Your task to perform on an android device: What's on my calendar today? Image 0: 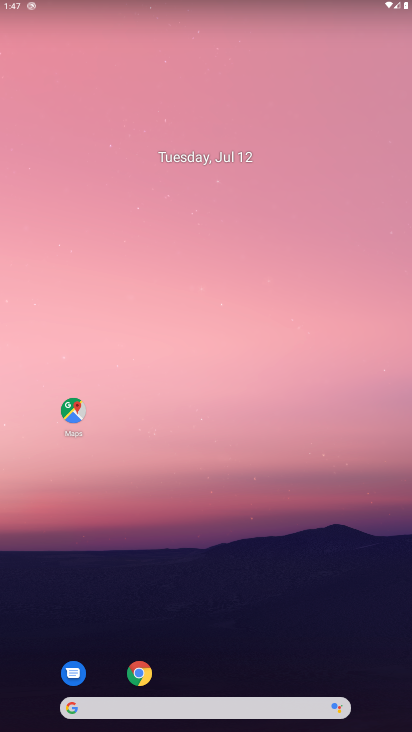
Step 0: drag from (269, 698) to (316, 351)
Your task to perform on an android device: What's on my calendar today? Image 1: 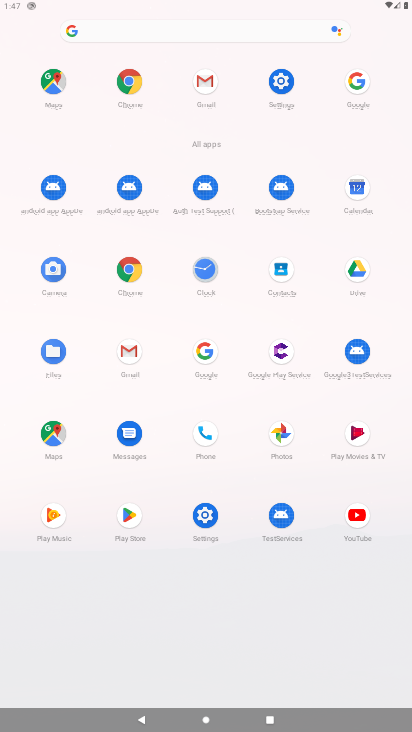
Step 1: click (357, 189)
Your task to perform on an android device: What's on my calendar today? Image 2: 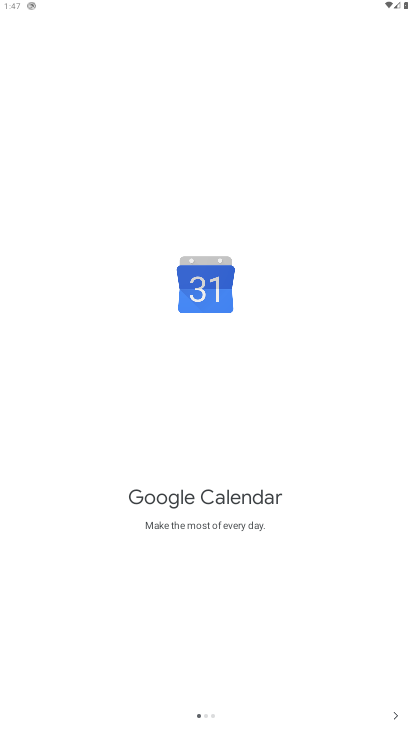
Step 2: click (394, 713)
Your task to perform on an android device: What's on my calendar today? Image 3: 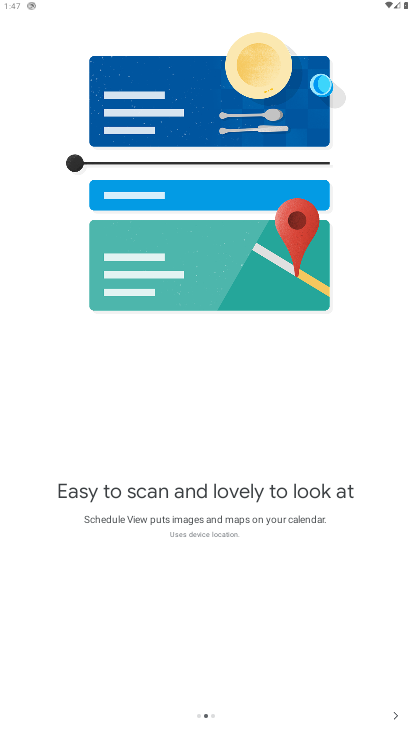
Step 3: click (394, 713)
Your task to perform on an android device: What's on my calendar today? Image 4: 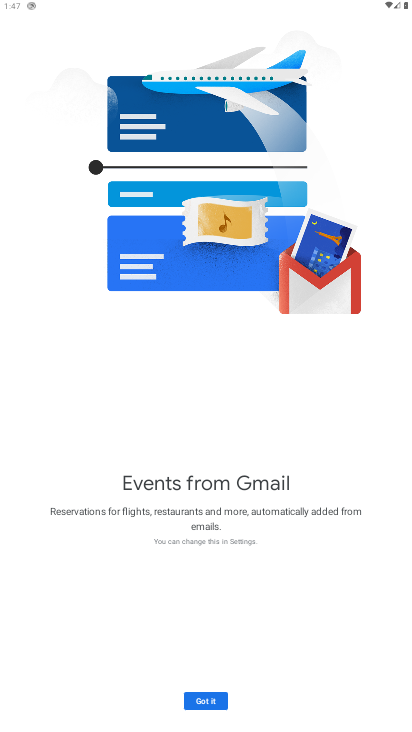
Step 4: click (209, 700)
Your task to perform on an android device: What's on my calendar today? Image 5: 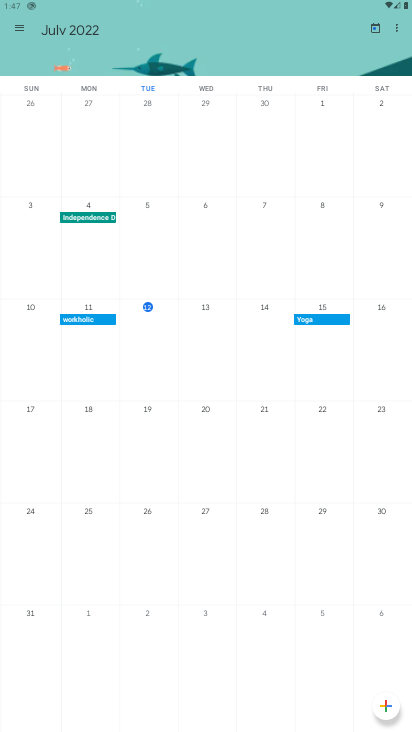
Step 5: click (152, 312)
Your task to perform on an android device: What's on my calendar today? Image 6: 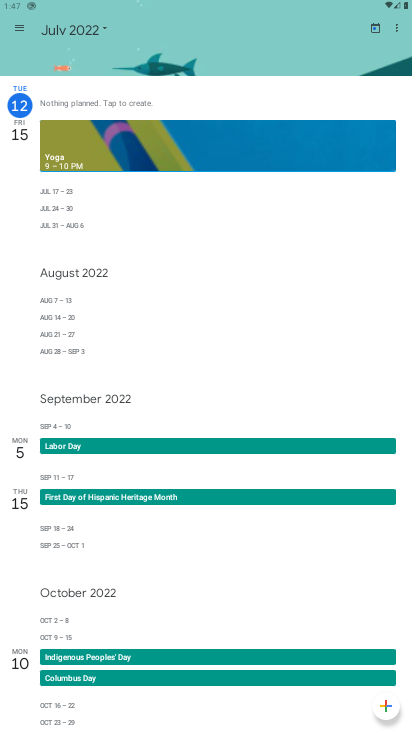
Step 6: task complete